Your task to perform on an android device: Show me popular videos on Youtube Image 0: 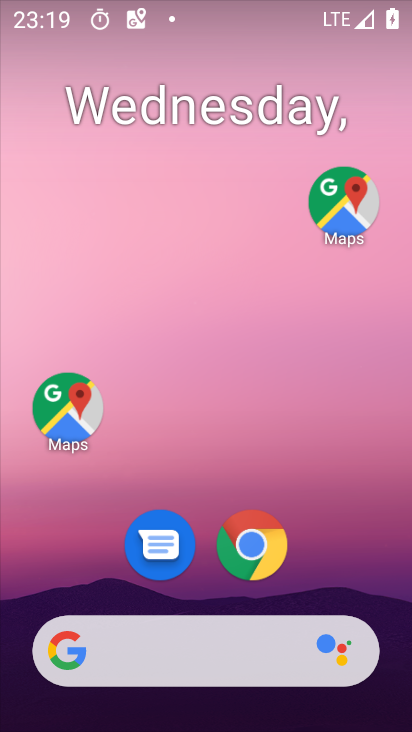
Step 0: drag from (318, 557) to (292, 11)
Your task to perform on an android device: Show me popular videos on Youtube Image 1: 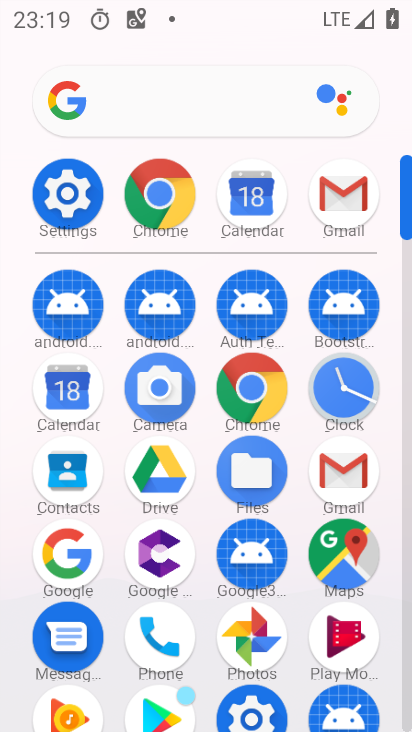
Step 1: drag from (196, 479) to (227, 198)
Your task to perform on an android device: Show me popular videos on Youtube Image 2: 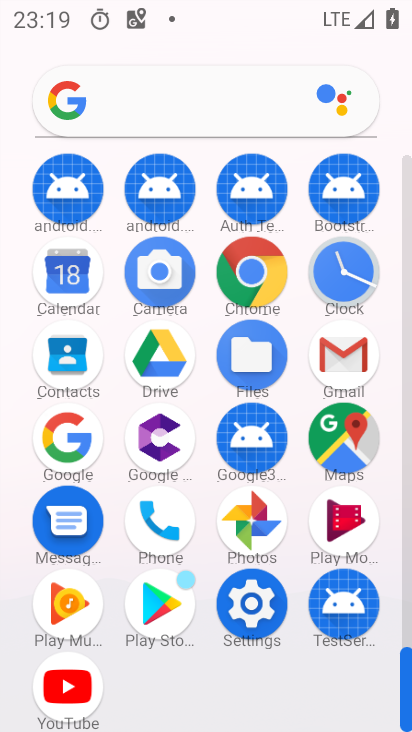
Step 2: click (71, 672)
Your task to perform on an android device: Show me popular videos on Youtube Image 3: 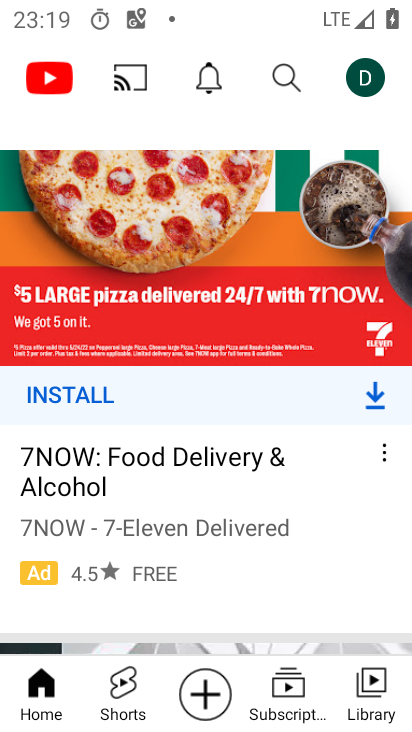
Step 3: drag from (87, 216) to (15, 731)
Your task to perform on an android device: Show me popular videos on Youtube Image 4: 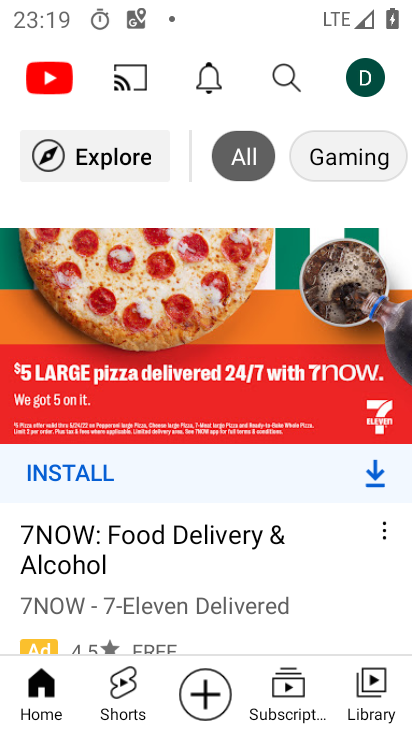
Step 4: click (110, 174)
Your task to perform on an android device: Show me popular videos on Youtube Image 5: 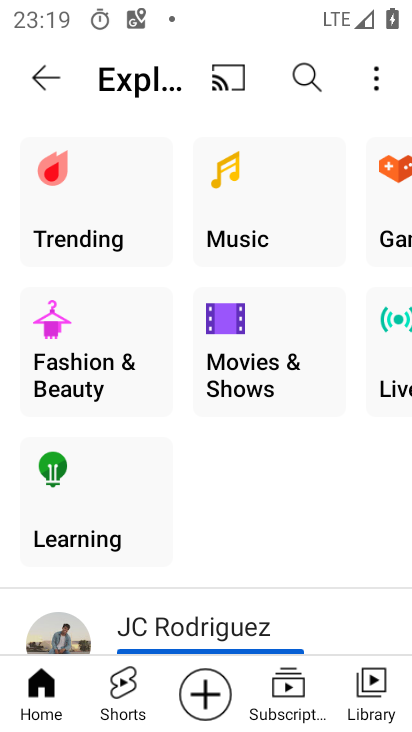
Step 5: click (93, 192)
Your task to perform on an android device: Show me popular videos on Youtube Image 6: 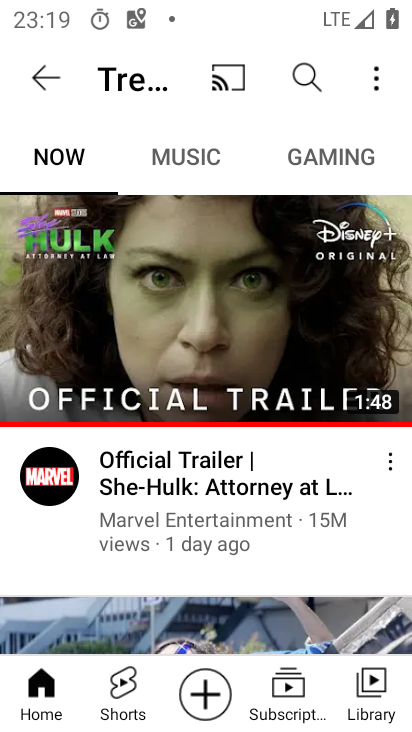
Step 6: task complete